Your task to perform on an android device: Go to Android settings Image 0: 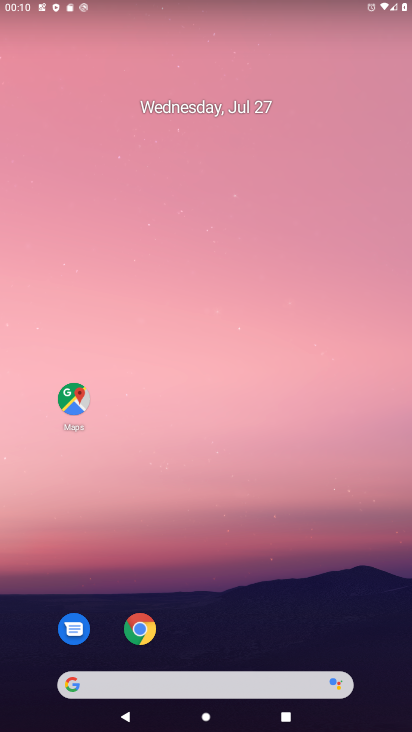
Step 0: drag from (221, 698) to (212, 212)
Your task to perform on an android device: Go to Android settings Image 1: 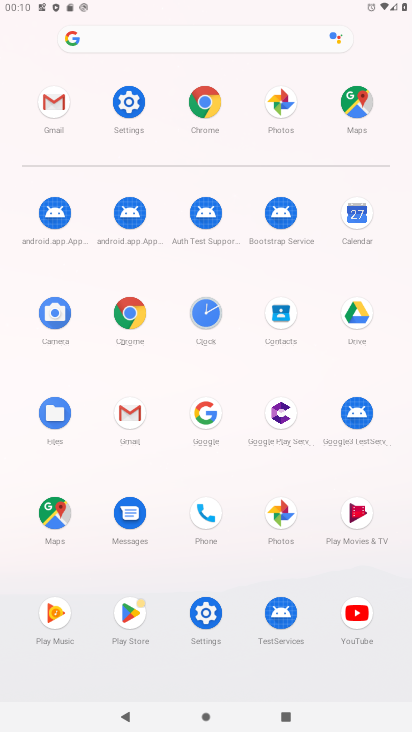
Step 1: click (128, 103)
Your task to perform on an android device: Go to Android settings Image 2: 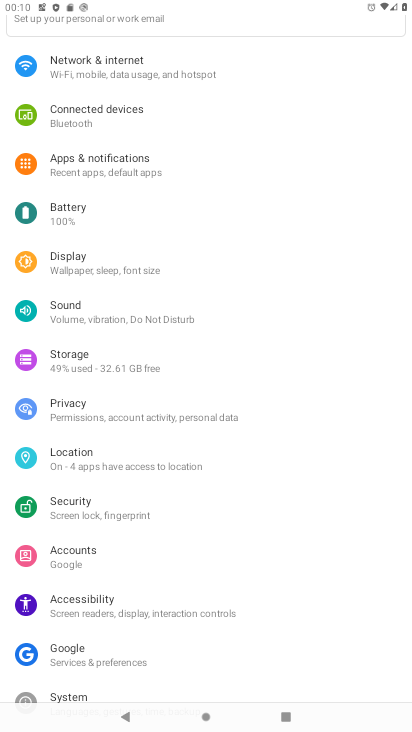
Step 2: task complete